Your task to perform on an android device: When is my next appointment? Image 0: 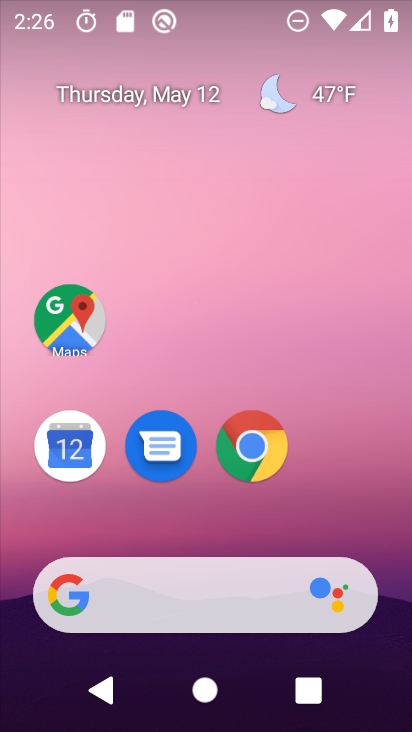
Step 0: drag from (200, 531) to (200, 216)
Your task to perform on an android device: When is my next appointment? Image 1: 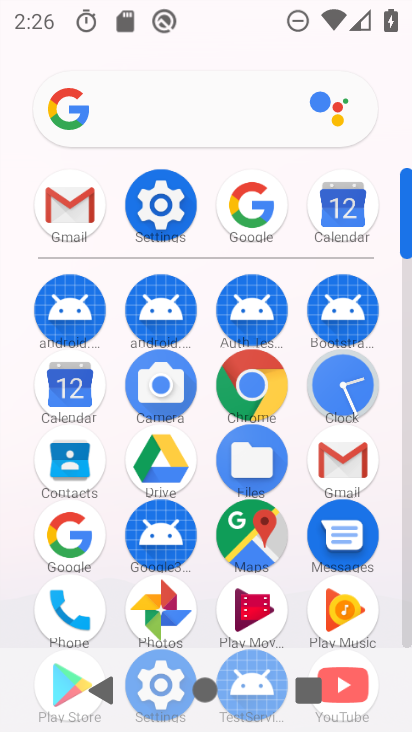
Step 1: click (78, 403)
Your task to perform on an android device: When is my next appointment? Image 2: 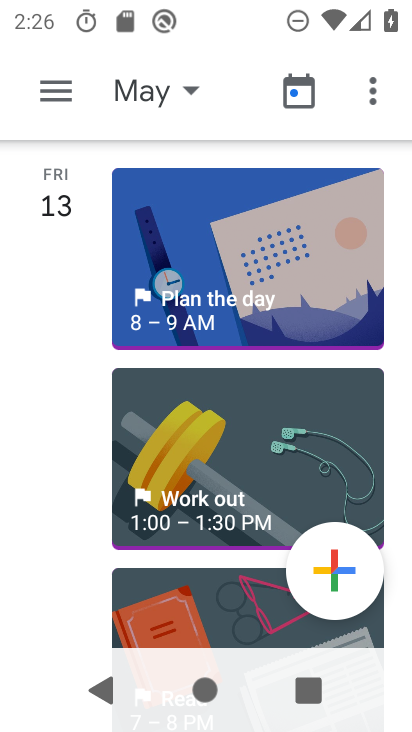
Step 2: click (194, 94)
Your task to perform on an android device: When is my next appointment? Image 3: 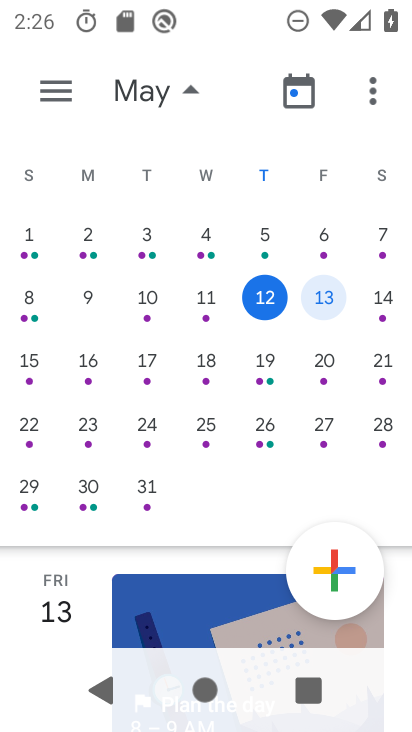
Step 3: task complete